Your task to perform on an android device: turn on wifi Image 0: 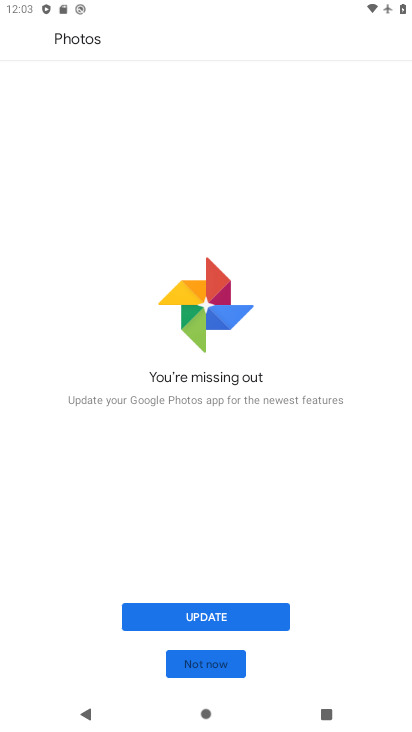
Step 0: press home button
Your task to perform on an android device: turn on wifi Image 1: 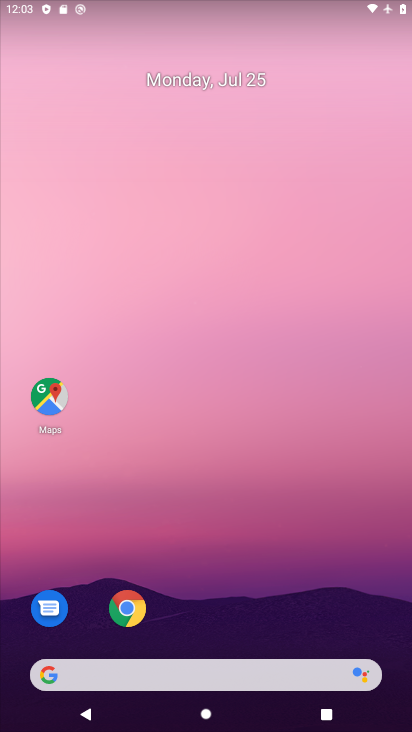
Step 1: drag from (257, 581) to (91, 55)
Your task to perform on an android device: turn on wifi Image 2: 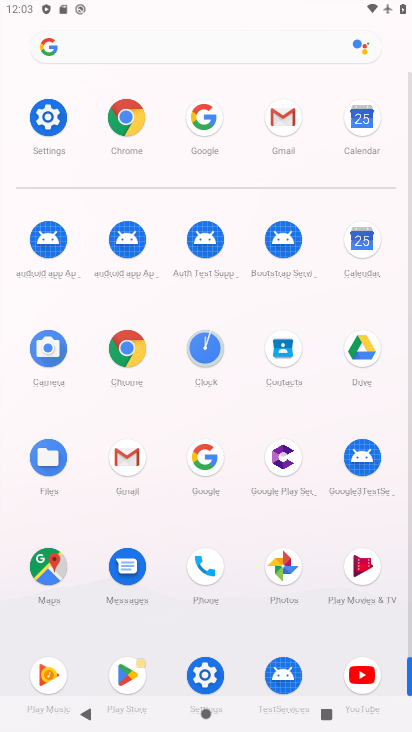
Step 2: click (53, 151)
Your task to perform on an android device: turn on wifi Image 3: 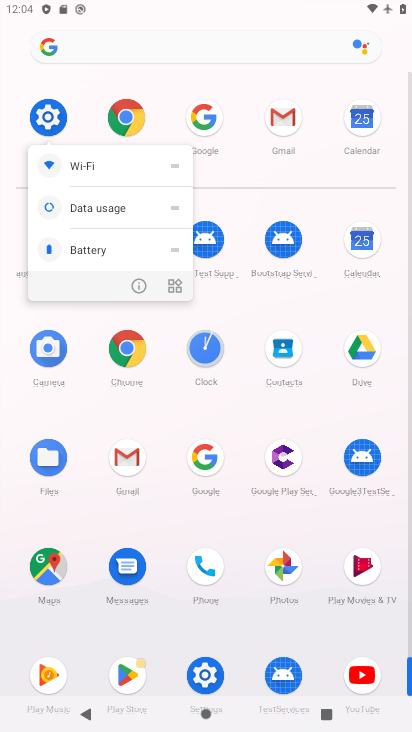
Step 3: click (50, 123)
Your task to perform on an android device: turn on wifi Image 4: 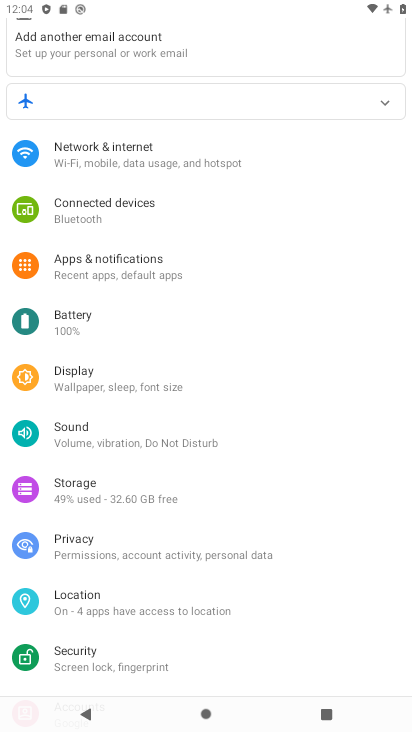
Step 4: click (115, 133)
Your task to perform on an android device: turn on wifi Image 5: 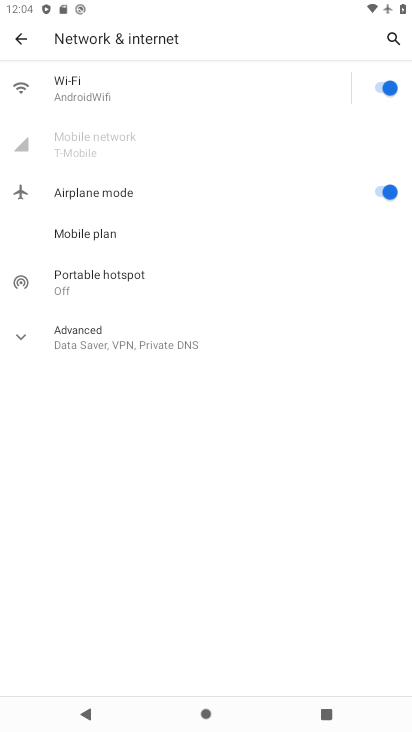
Step 5: task complete